Your task to perform on an android device: Go to location settings Image 0: 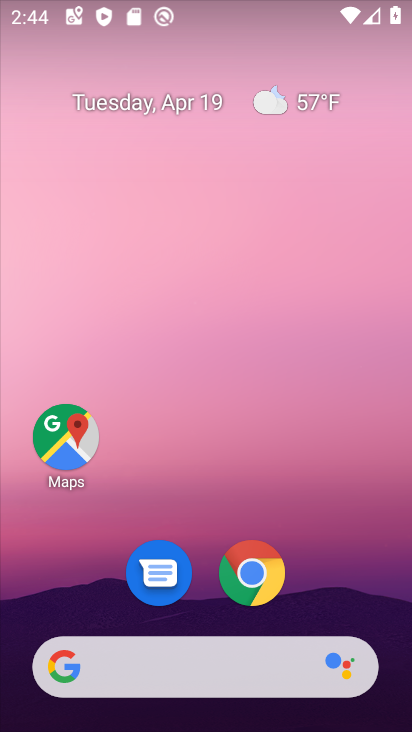
Step 0: drag from (375, 601) to (379, 25)
Your task to perform on an android device: Go to location settings Image 1: 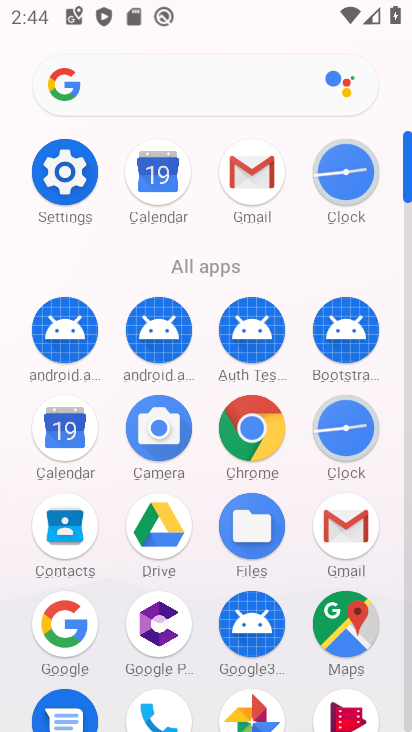
Step 1: click (60, 174)
Your task to perform on an android device: Go to location settings Image 2: 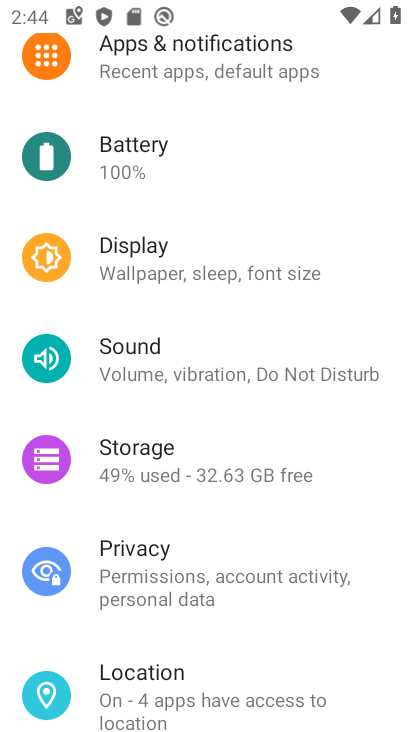
Step 2: click (160, 687)
Your task to perform on an android device: Go to location settings Image 3: 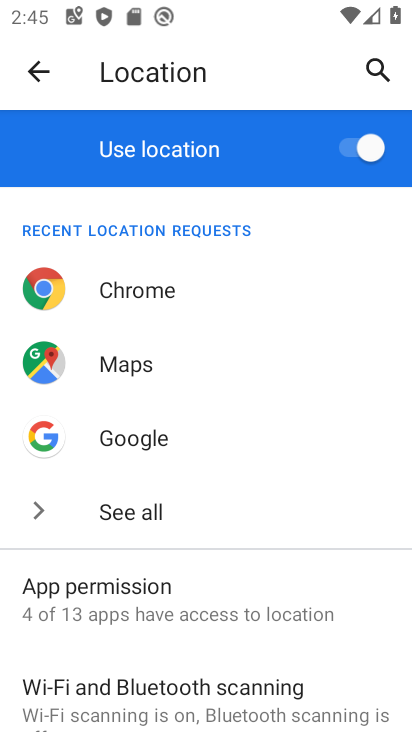
Step 3: task complete